Your task to perform on an android device: turn notification dots on Image 0: 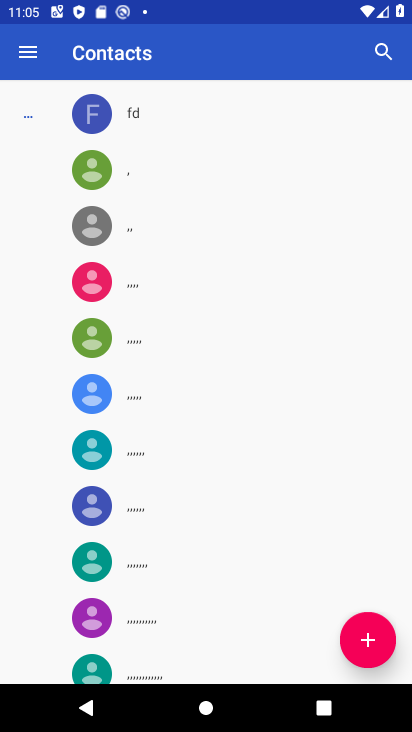
Step 0: press home button
Your task to perform on an android device: turn notification dots on Image 1: 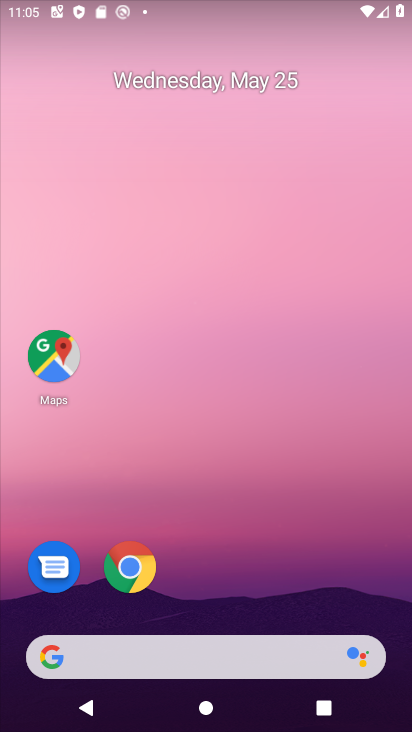
Step 1: drag from (207, 592) to (293, 32)
Your task to perform on an android device: turn notification dots on Image 2: 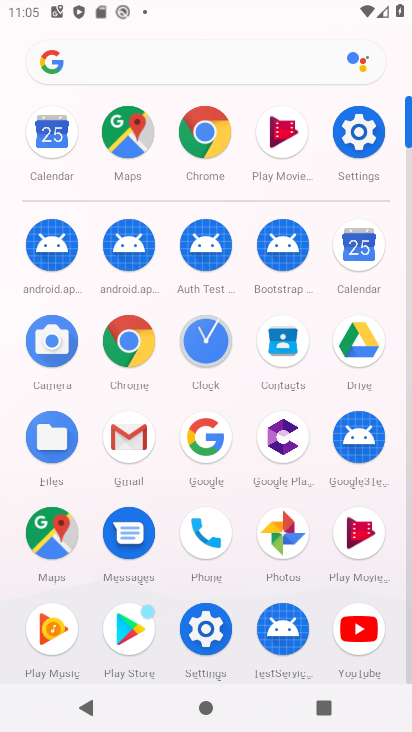
Step 2: click (368, 146)
Your task to perform on an android device: turn notification dots on Image 3: 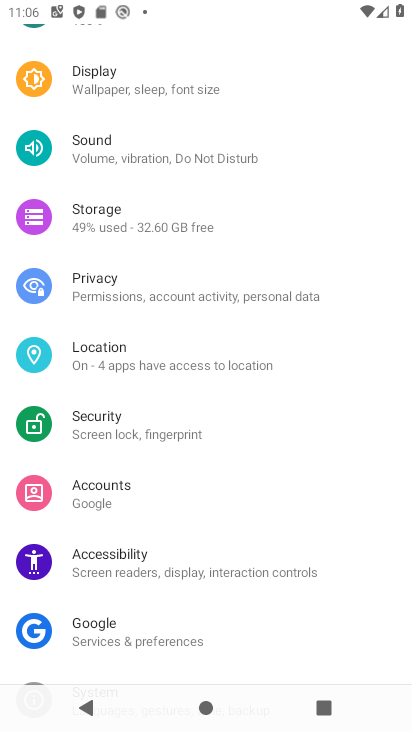
Step 3: drag from (212, 275) to (174, 576)
Your task to perform on an android device: turn notification dots on Image 4: 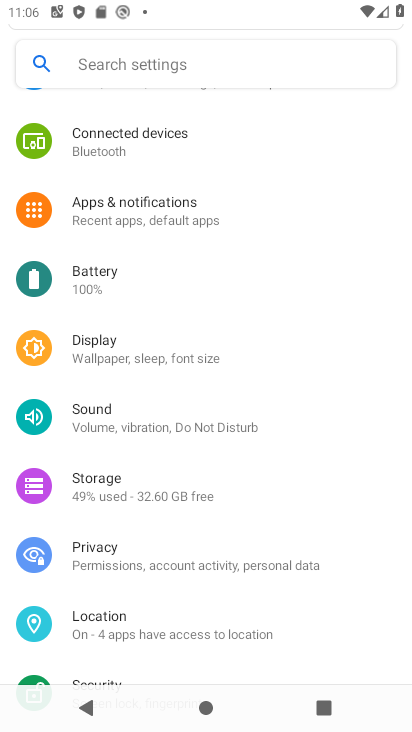
Step 4: click (158, 222)
Your task to perform on an android device: turn notification dots on Image 5: 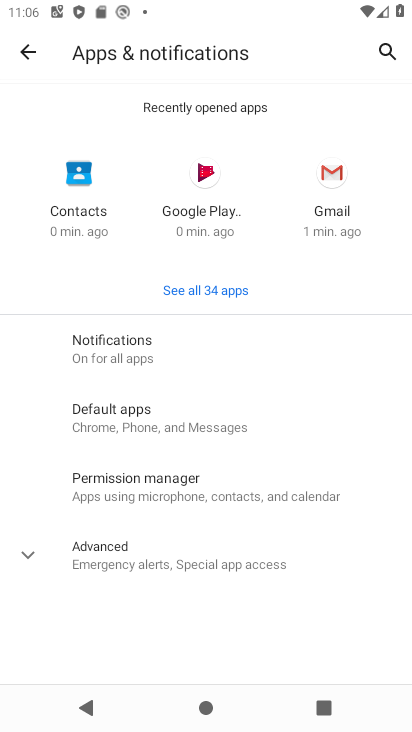
Step 5: click (113, 350)
Your task to perform on an android device: turn notification dots on Image 6: 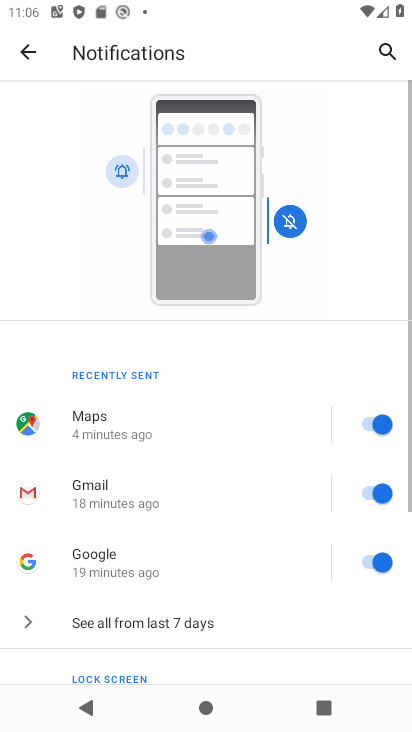
Step 6: drag from (217, 621) to (233, 262)
Your task to perform on an android device: turn notification dots on Image 7: 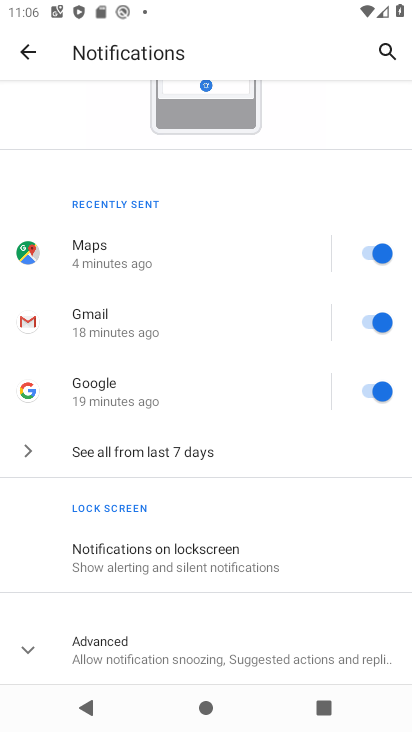
Step 7: click (217, 569)
Your task to perform on an android device: turn notification dots on Image 8: 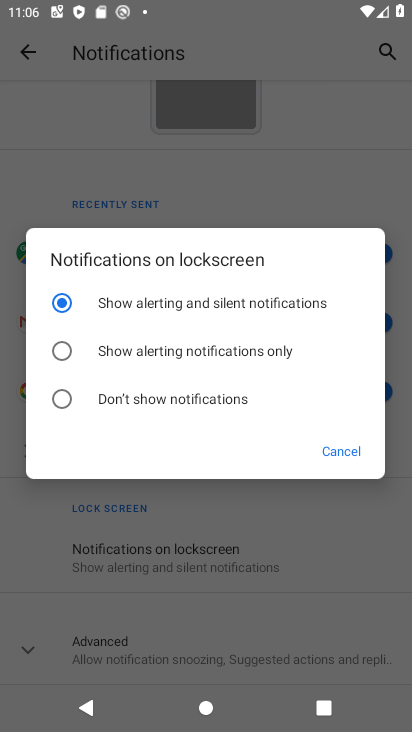
Step 8: click (200, 654)
Your task to perform on an android device: turn notification dots on Image 9: 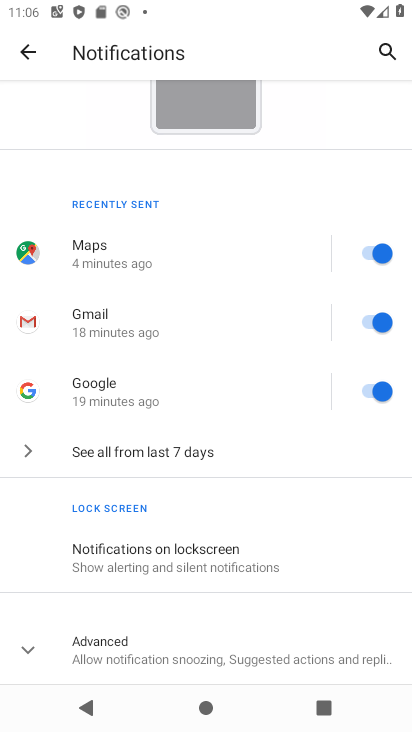
Step 9: click (200, 654)
Your task to perform on an android device: turn notification dots on Image 10: 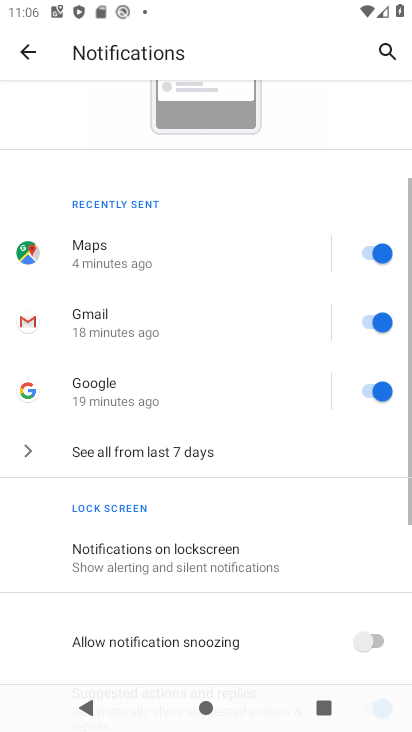
Step 10: task complete